Your task to perform on an android device: Open eBay Image 0: 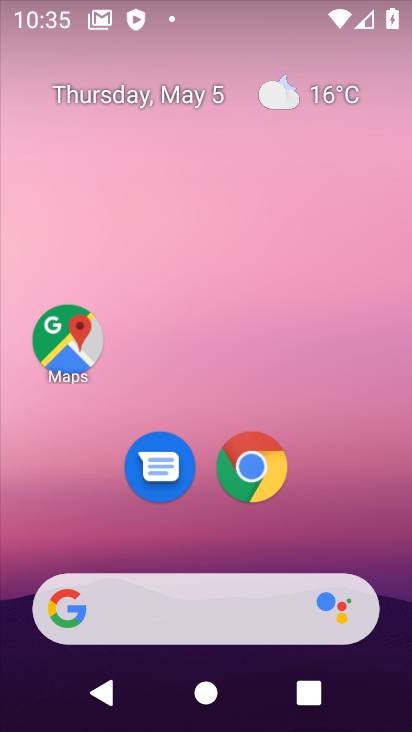
Step 0: click (138, 613)
Your task to perform on an android device: Open eBay Image 1: 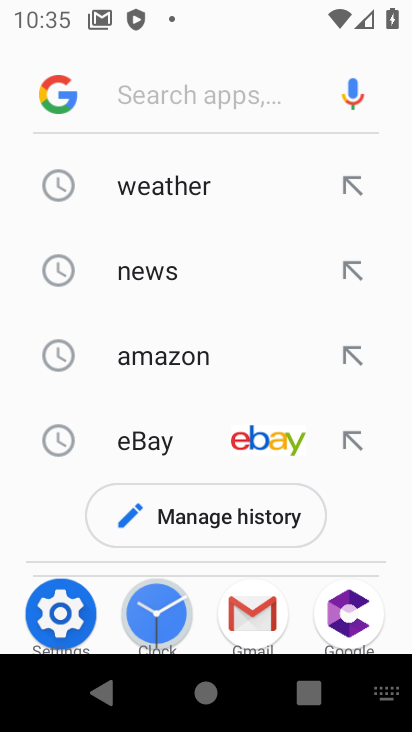
Step 1: click (230, 444)
Your task to perform on an android device: Open eBay Image 2: 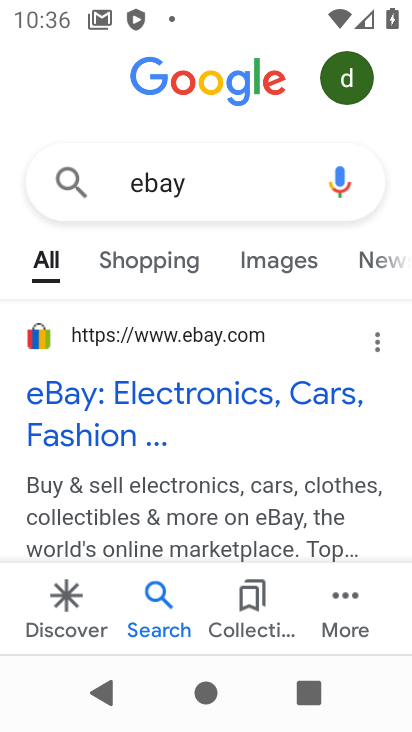
Step 2: click (152, 423)
Your task to perform on an android device: Open eBay Image 3: 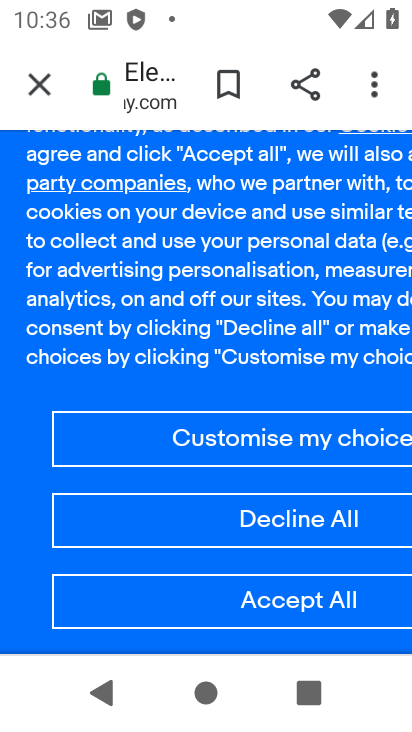
Step 3: task complete